Your task to perform on an android device: change your default location settings in chrome Image 0: 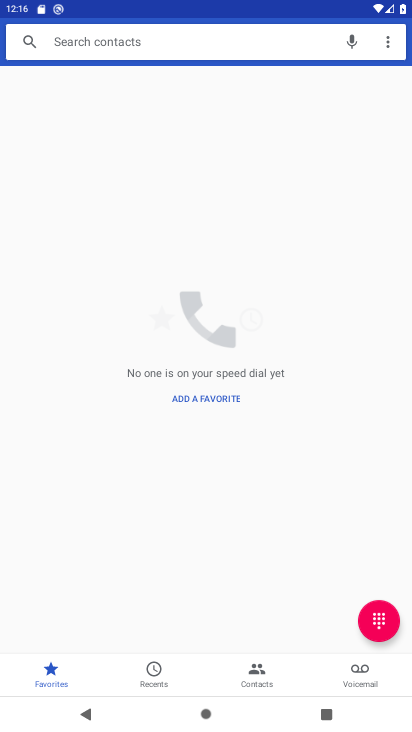
Step 0: press home button
Your task to perform on an android device: change your default location settings in chrome Image 1: 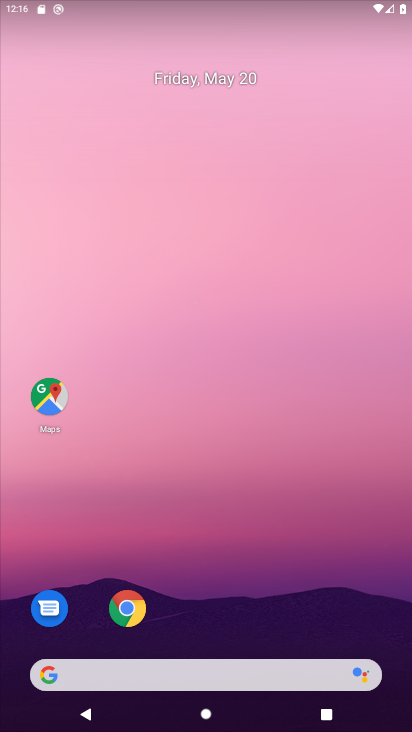
Step 1: drag from (328, 435) to (356, 3)
Your task to perform on an android device: change your default location settings in chrome Image 2: 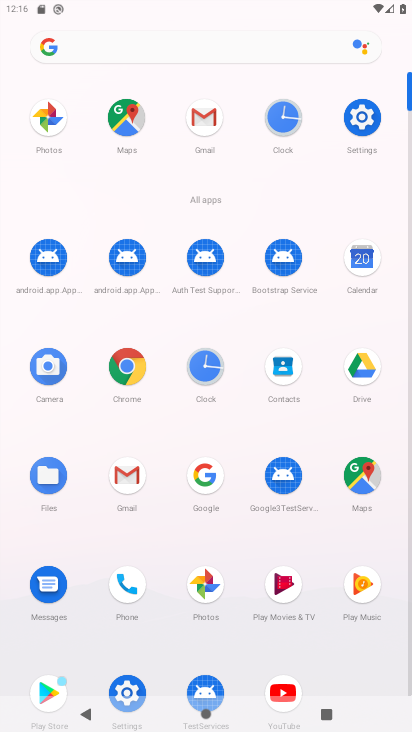
Step 2: click (144, 370)
Your task to perform on an android device: change your default location settings in chrome Image 3: 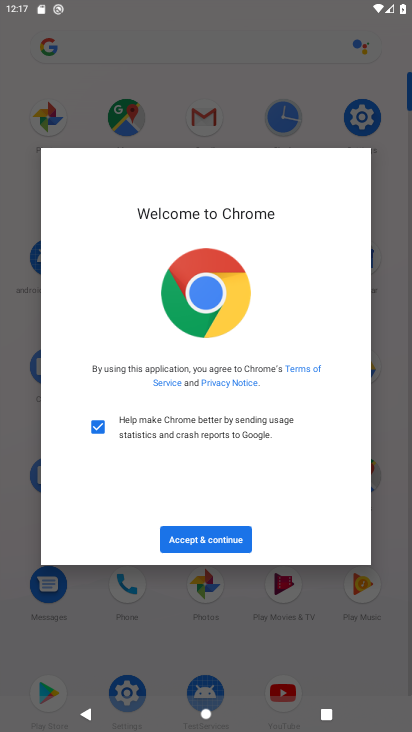
Step 3: click (184, 538)
Your task to perform on an android device: change your default location settings in chrome Image 4: 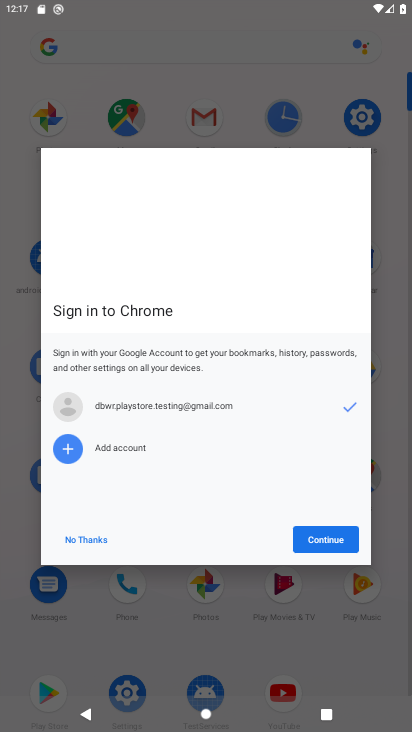
Step 4: click (344, 542)
Your task to perform on an android device: change your default location settings in chrome Image 5: 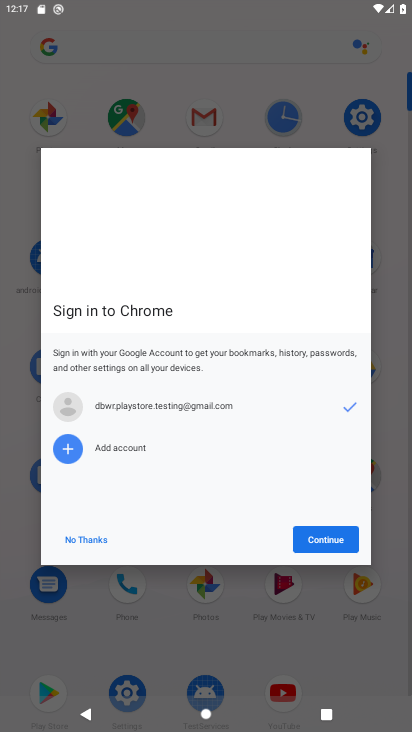
Step 5: click (344, 542)
Your task to perform on an android device: change your default location settings in chrome Image 6: 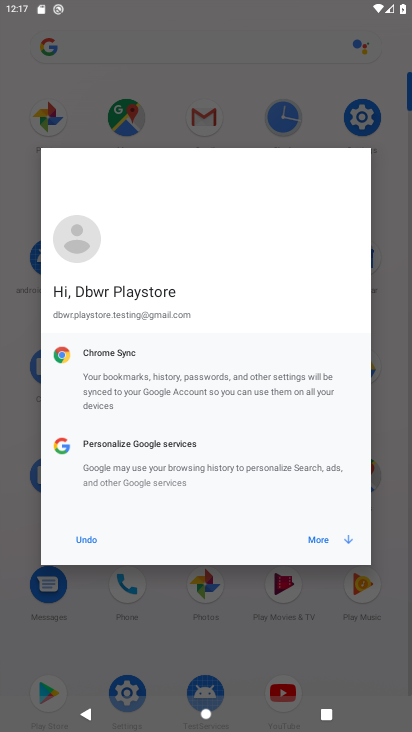
Step 6: click (344, 542)
Your task to perform on an android device: change your default location settings in chrome Image 7: 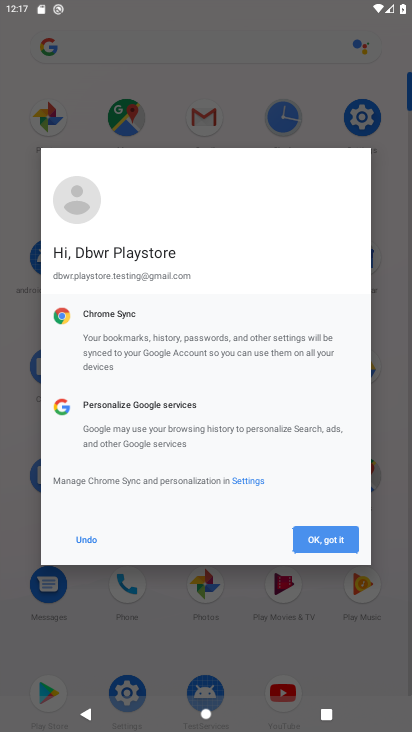
Step 7: click (344, 542)
Your task to perform on an android device: change your default location settings in chrome Image 8: 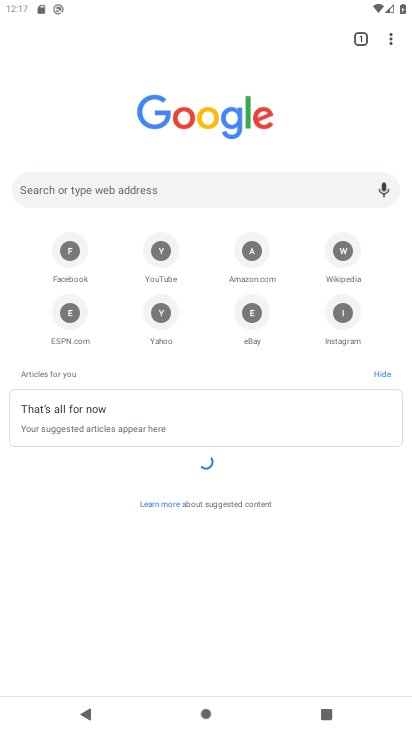
Step 8: drag from (387, 44) to (261, 324)
Your task to perform on an android device: change your default location settings in chrome Image 9: 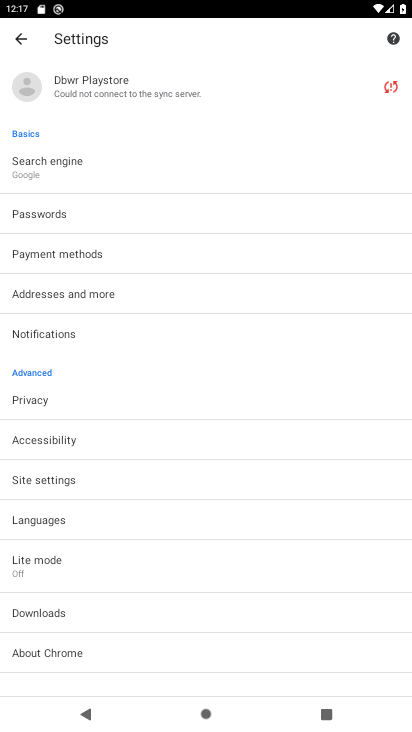
Step 9: click (100, 479)
Your task to perform on an android device: change your default location settings in chrome Image 10: 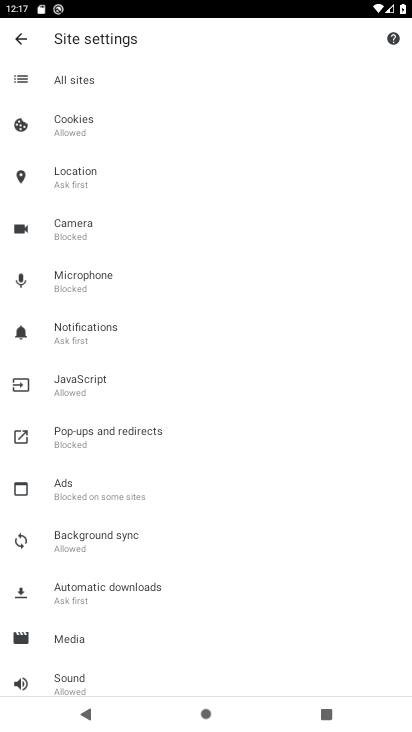
Step 10: click (54, 181)
Your task to perform on an android device: change your default location settings in chrome Image 11: 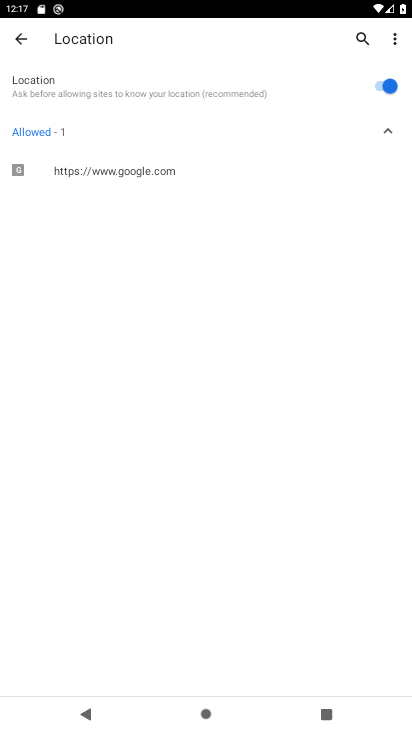
Step 11: click (115, 192)
Your task to perform on an android device: change your default location settings in chrome Image 12: 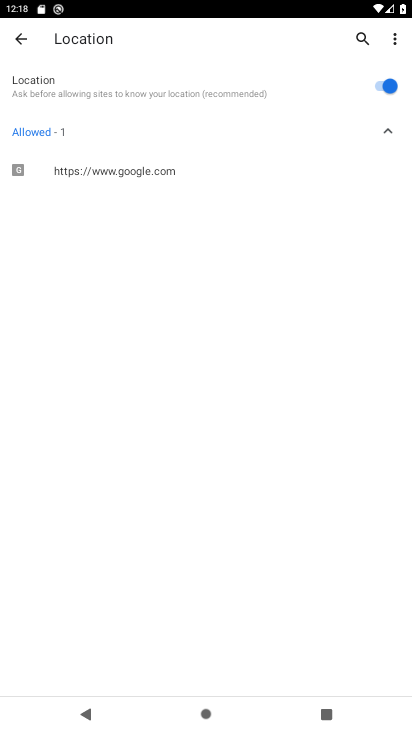
Step 12: click (118, 172)
Your task to perform on an android device: change your default location settings in chrome Image 13: 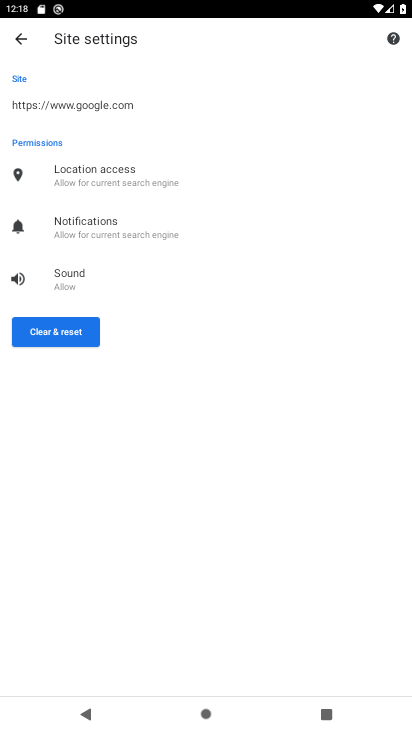
Step 13: click (100, 181)
Your task to perform on an android device: change your default location settings in chrome Image 14: 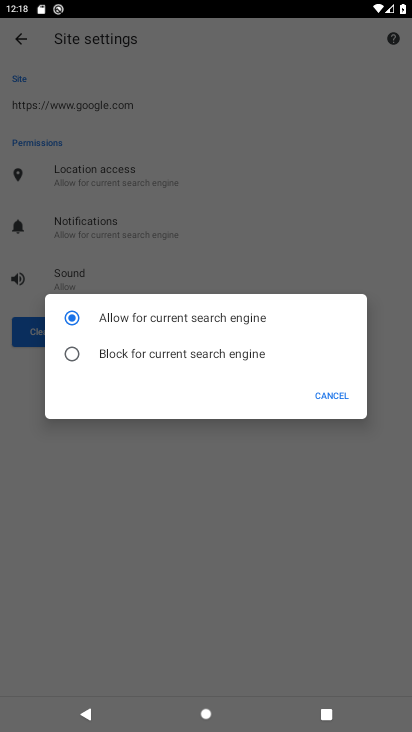
Step 14: click (318, 406)
Your task to perform on an android device: change your default location settings in chrome Image 15: 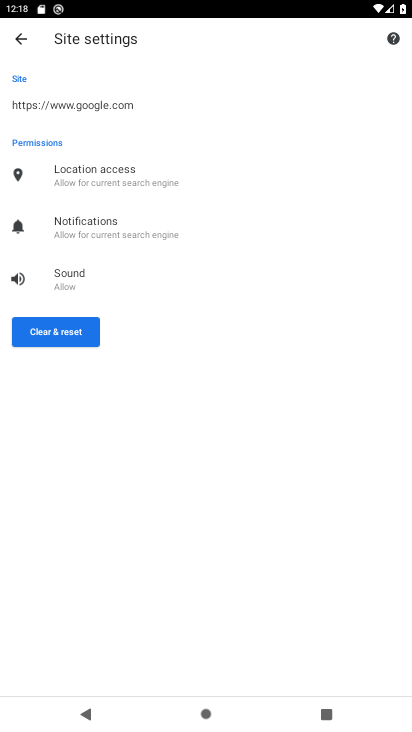
Step 15: click (80, 240)
Your task to perform on an android device: change your default location settings in chrome Image 16: 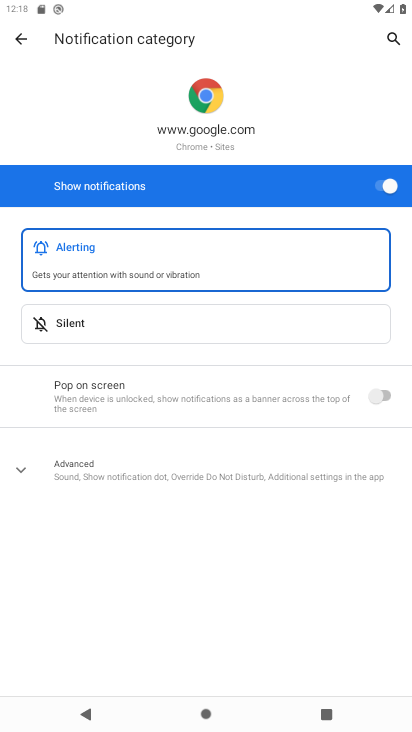
Step 16: click (329, 406)
Your task to perform on an android device: change your default location settings in chrome Image 17: 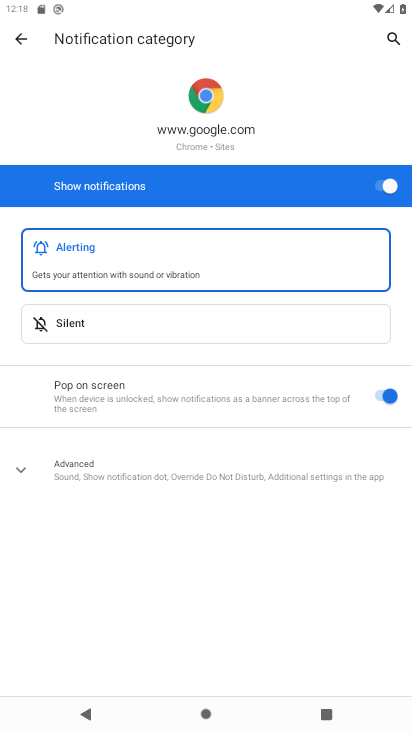
Step 17: task complete